Your task to perform on an android device: Search for Italian restaurants on Maps Image 0: 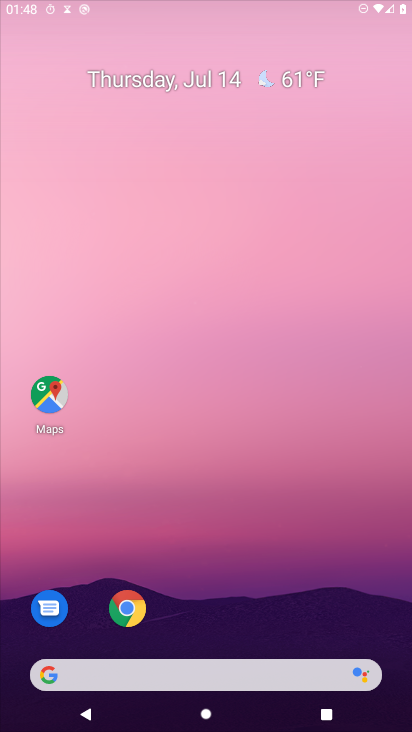
Step 0: press home button
Your task to perform on an android device: Search for Italian restaurants on Maps Image 1: 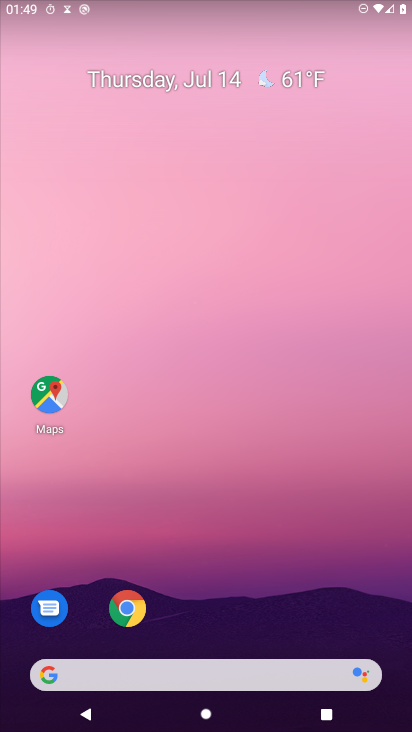
Step 1: click (54, 400)
Your task to perform on an android device: Search for Italian restaurants on Maps Image 2: 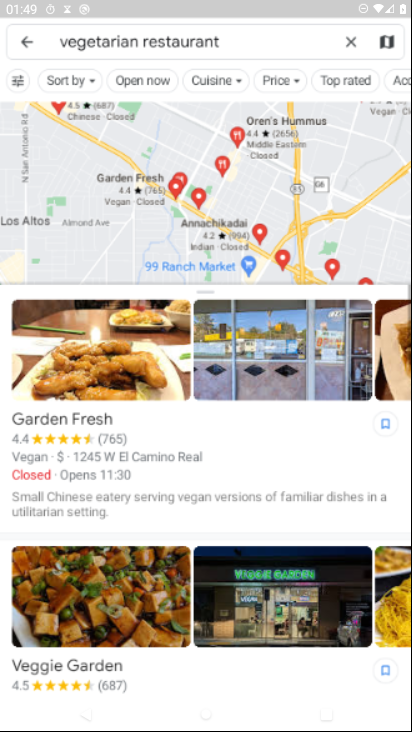
Step 2: click (351, 46)
Your task to perform on an android device: Search for Italian restaurants on Maps Image 3: 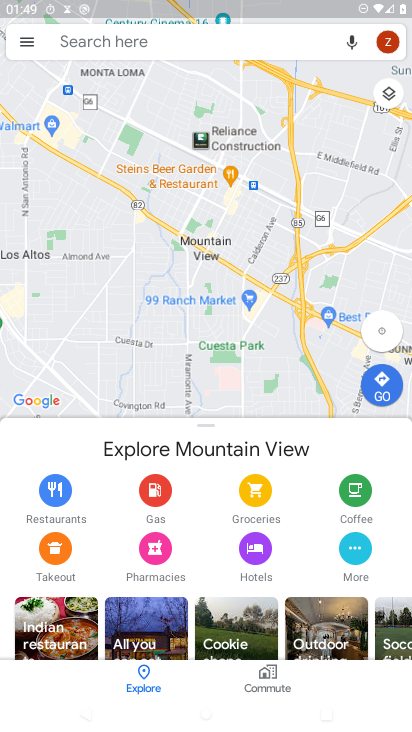
Step 3: type "Italian restaurants"
Your task to perform on an android device: Search for Italian restaurants on Maps Image 4: 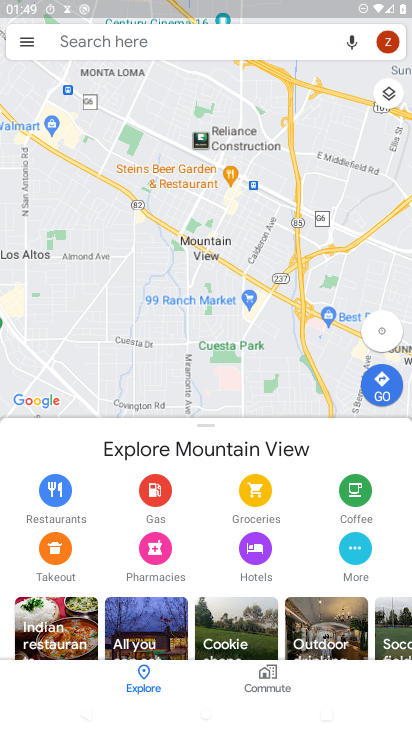
Step 4: click (81, 39)
Your task to perform on an android device: Search for Italian restaurants on Maps Image 5: 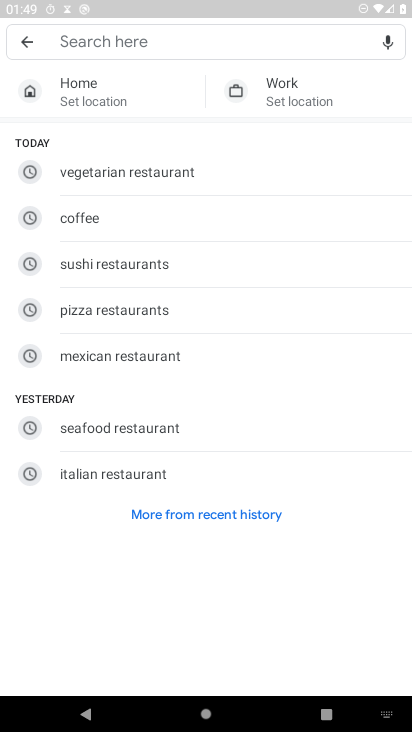
Step 5: click (120, 476)
Your task to perform on an android device: Search for Italian restaurants on Maps Image 6: 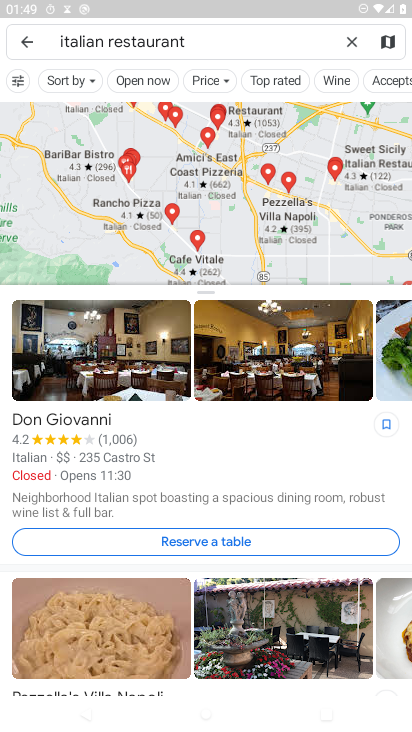
Step 6: task complete